Your task to perform on an android device: turn notification dots on Image 0: 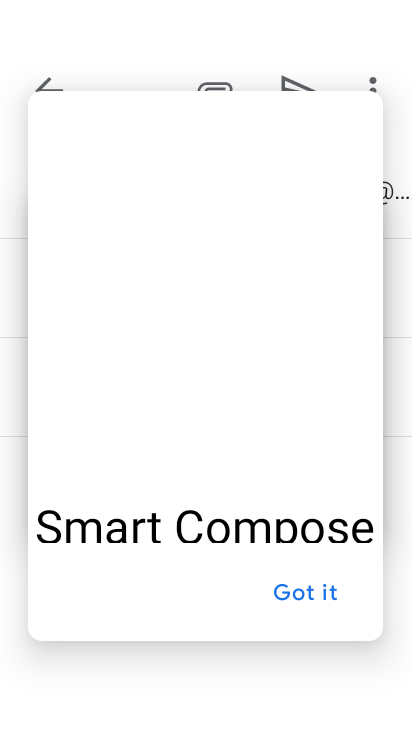
Step 0: press home button
Your task to perform on an android device: turn notification dots on Image 1: 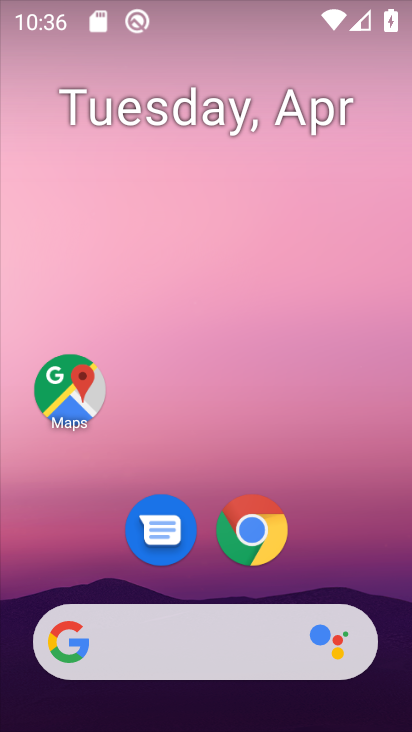
Step 1: drag from (182, 608) to (351, 19)
Your task to perform on an android device: turn notification dots on Image 2: 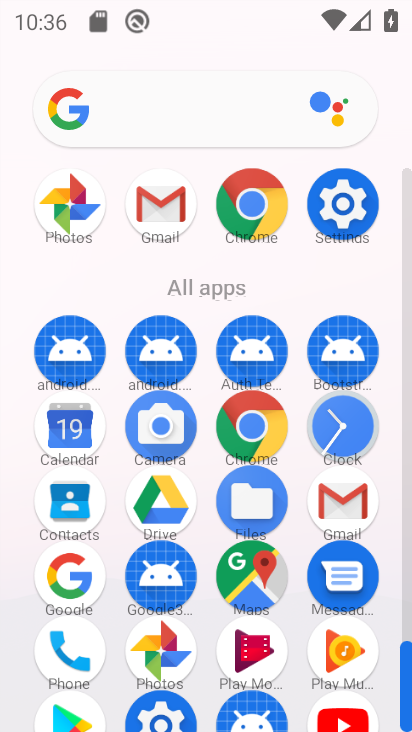
Step 2: click (348, 213)
Your task to perform on an android device: turn notification dots on Image 3: 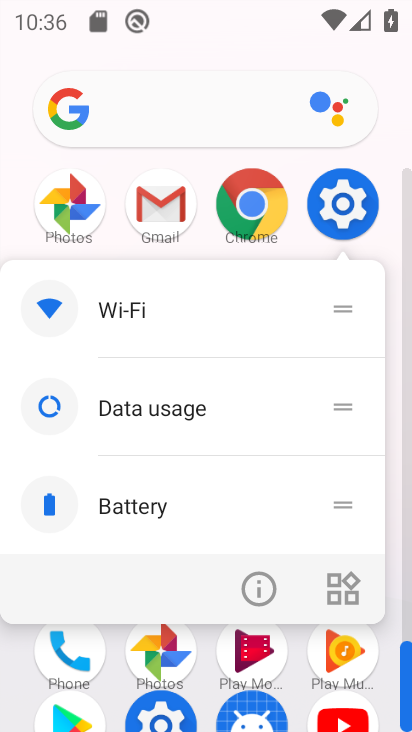
Step 3: click (348, 208)
Your task to perform on an android device: turn notification dots on Image 4: 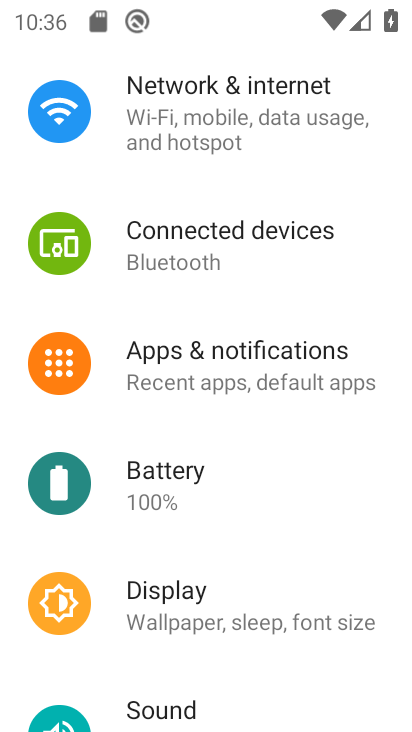
Step 4: click (215, 358)
Your task to perform on an android device: turn notification dots on Image 5: 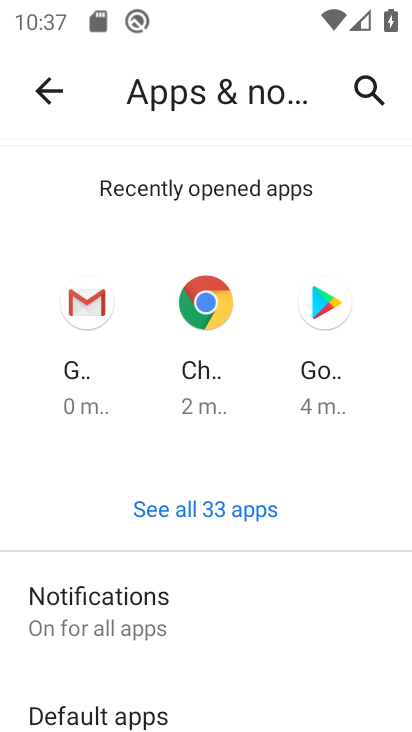
Step 5: click (118, 608)
Your task to perform on an android device: turn notification dots on Image 6: 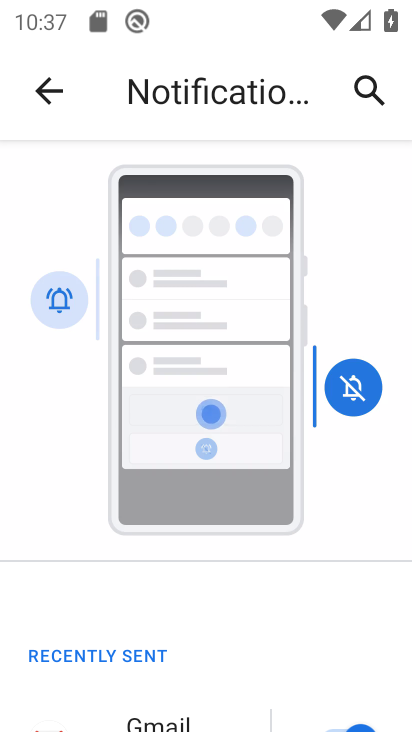
Step 6: drag from (118, 666) to (336, 69)
Your task to perform on an android device: turn notification dots on Image 7: 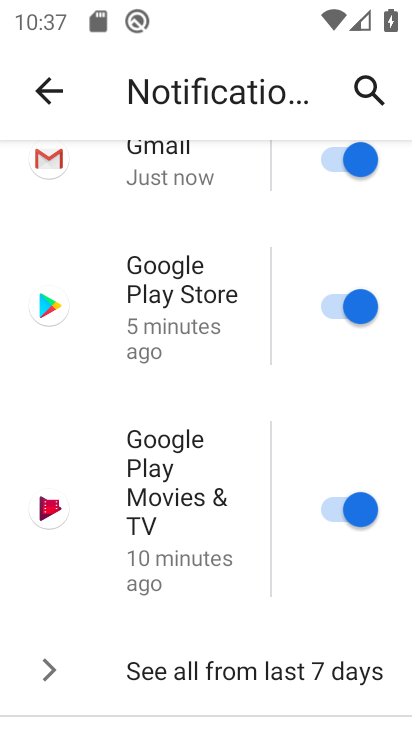
Step 7: drag from (175, 579) to (364, 31)
Your task to perform on an android device: turn notification dots on Image 8: 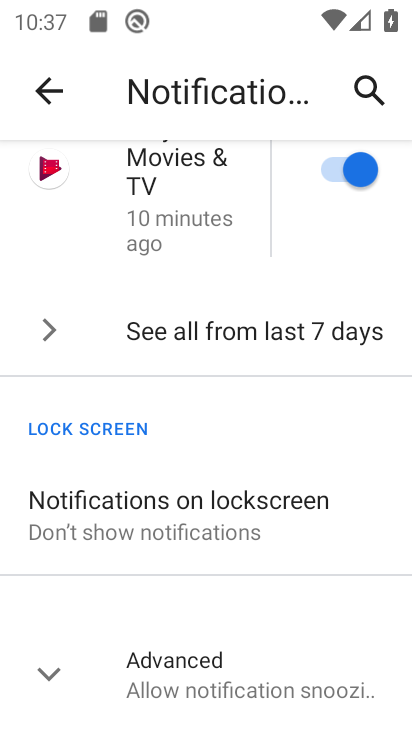
Step 8: drag from (130, 586) to (335, 38)
Your task to perform on an android device: turn notification dots on Image 9: 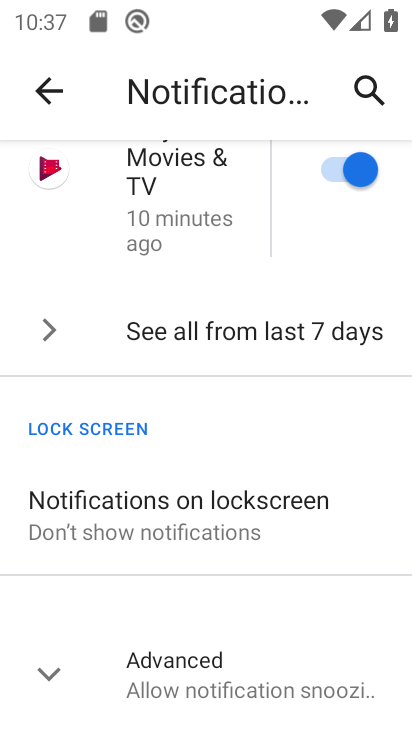
Step 9: click (121, 674)
Your task to perform on an android device: turn notification dots on Image 10: 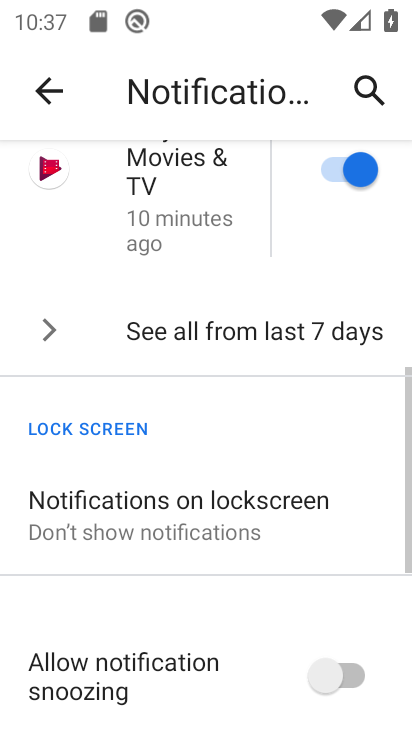
Step 10: task complete